Your task to perform on an android device: toggle javascript in the chrome app Image 0: 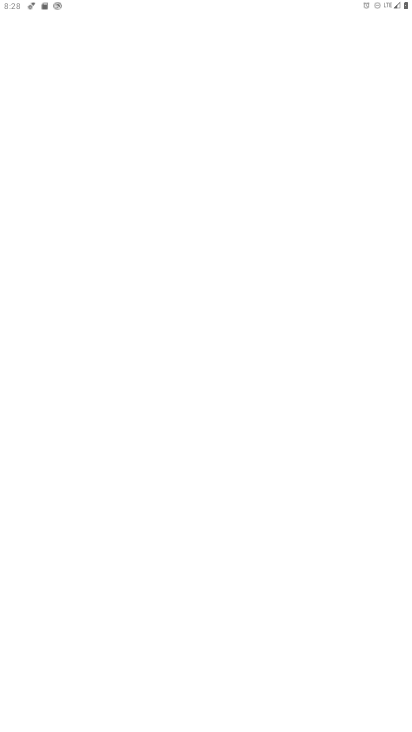
Step 0: press home button
Your task to perform on an android device: toggle javascript in the chrome app Image 1: 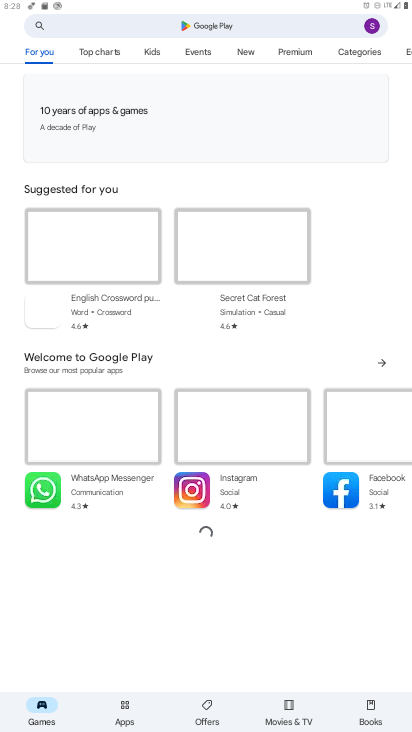
Step 1: drag from (357, 682) to (185, 22)
Your task to perform on an android device: toggle javascript in the chrome app Image 2: 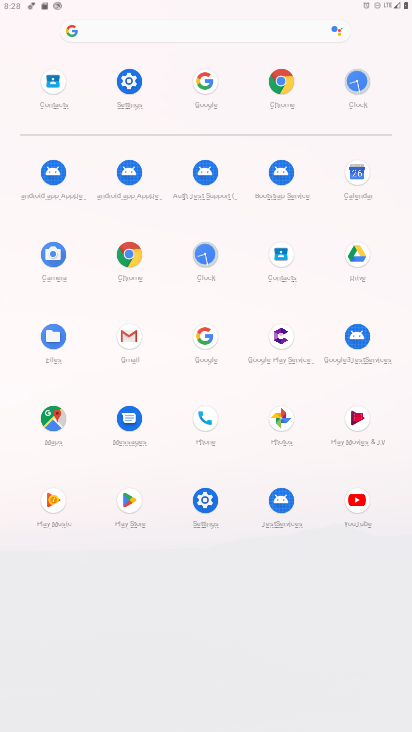
Step 2: click (134, 248)
Your task to perform on an android device: toggle javascript in the chrome app Image 3: 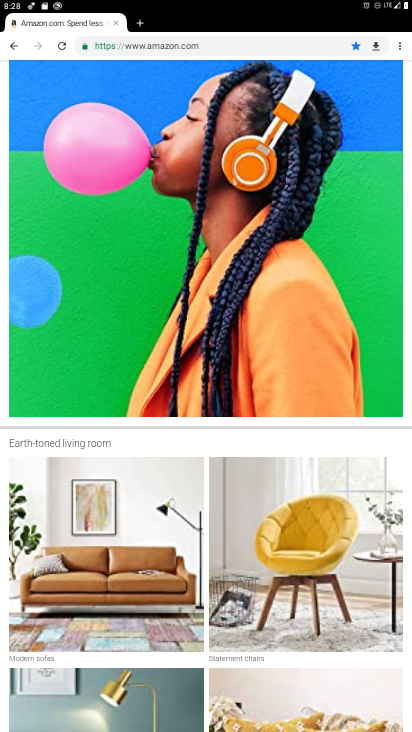
Step 3: click (400, 44)
Your task to perform on an android device: toggle javascript in the chrome app Image 4: 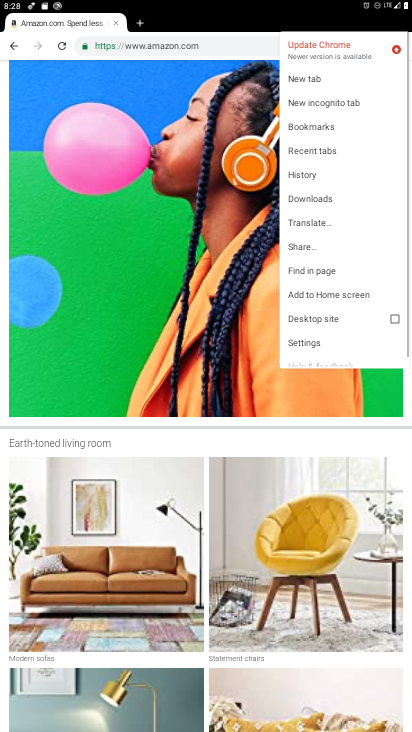
Step 4: click (303, 341)
Your task to perform on an android device: toggle javascript in the chrome app Image 5: 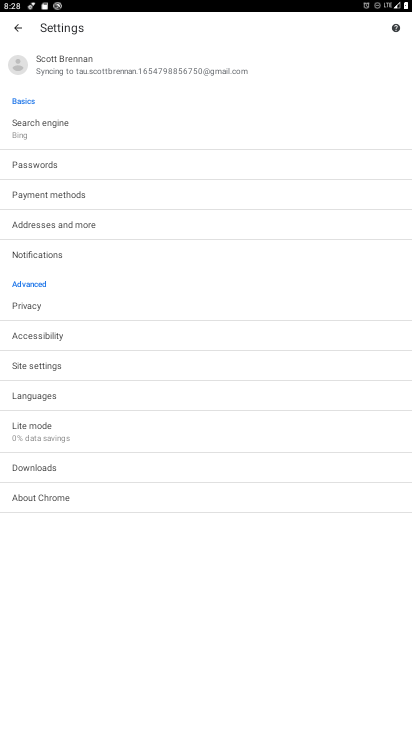
Step 5: click (82, 370)
Your task to perform on an android device: toggle javascript in the chrome app Image 6: 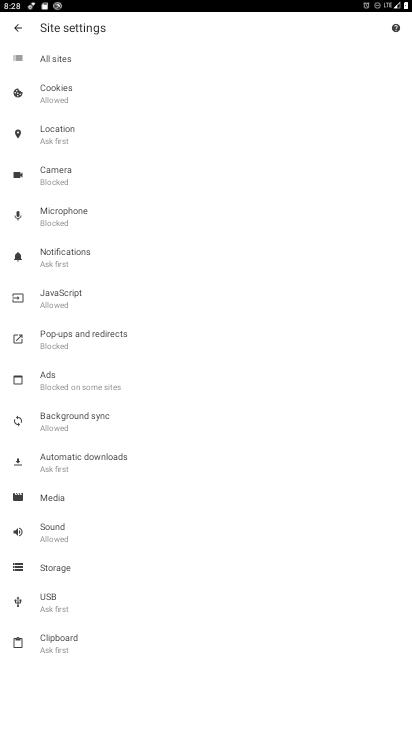
Step 6: click (68, 301)
Your task to perform on an android device: toggle javascript in the chrome app Image 7: 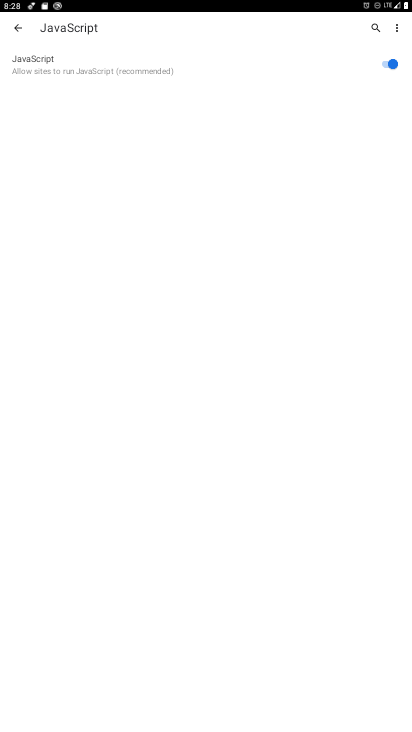
Step 7: click (370, 64)
Your task to perform on an android device: toggle javascript in the chrome app Image 8: 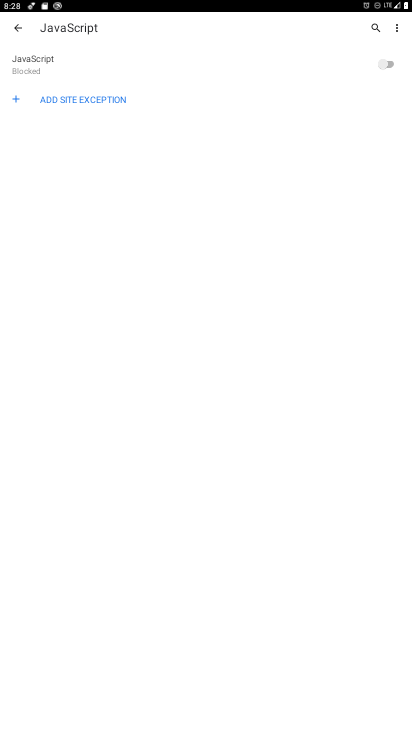
Step 8: task complete